Your task to perform on an android device: delete a single message in the gmail app Image 0: 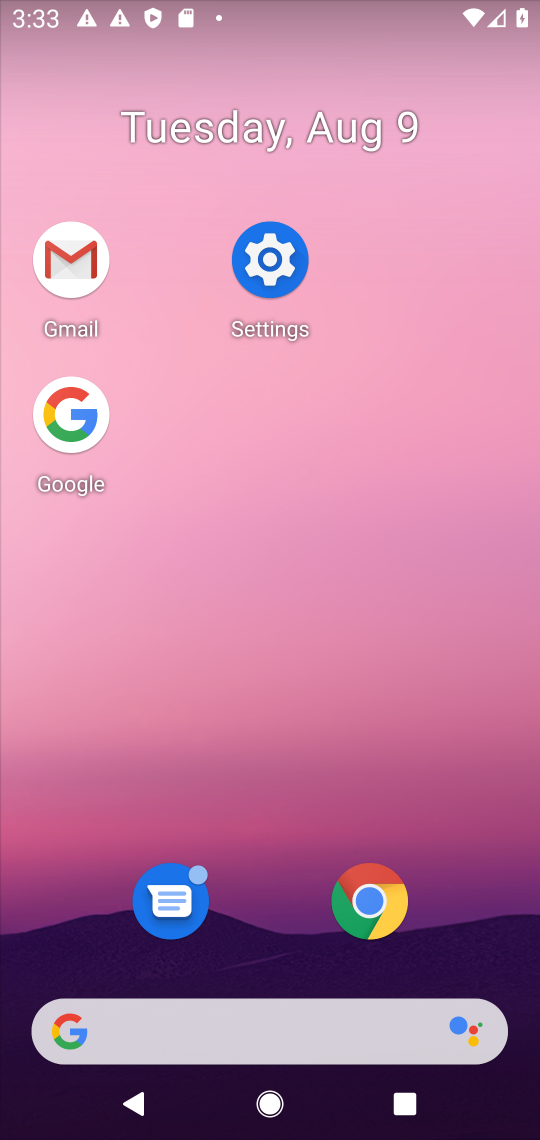
Step 0: click (51, 265)
Your task to perform on an android device: delete a single message in the gmail app Image 1: 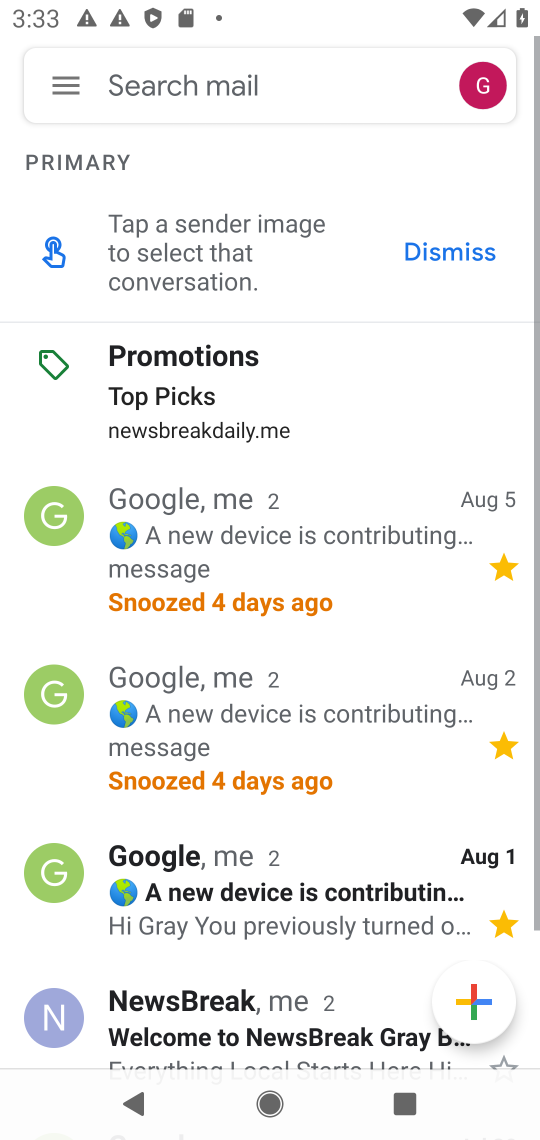
Step 1: click (257, 505)
Your task to perform on an android device: delete a single message in the gmail app Image 2: 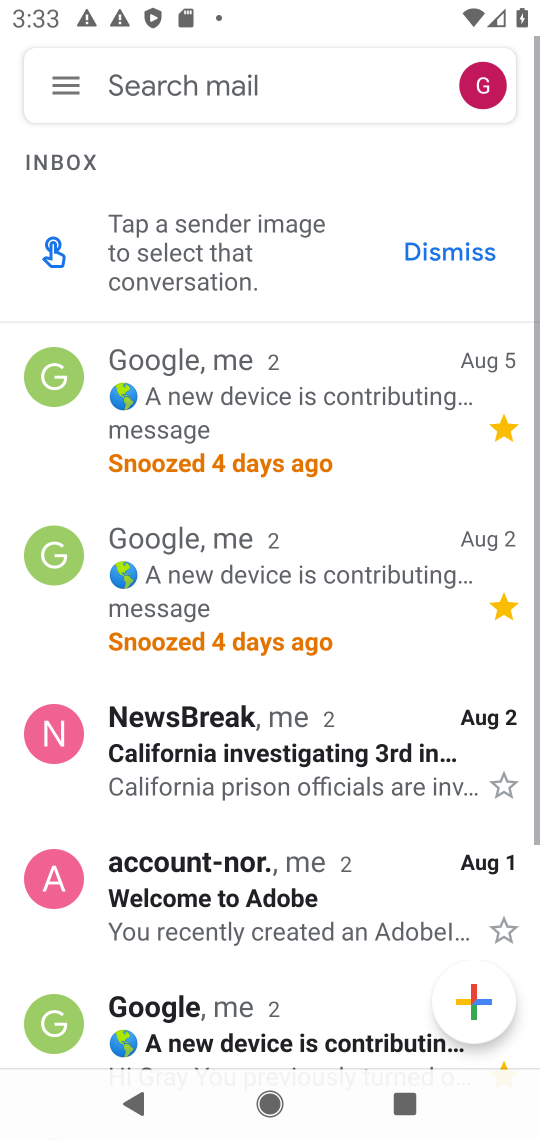
Step 2: click (299, 389)
Your task to perform on an android device: delete a single message in the gmail app Image 3: 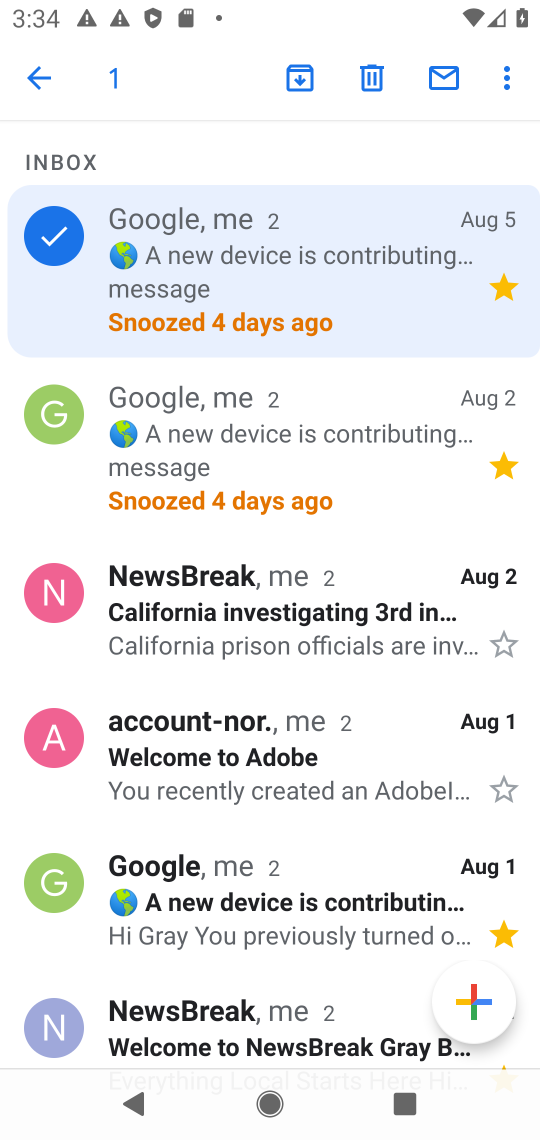
Step 3: click (369, 68)
Your task to perform on an android device: delete a single message in the gmail app Image 4: 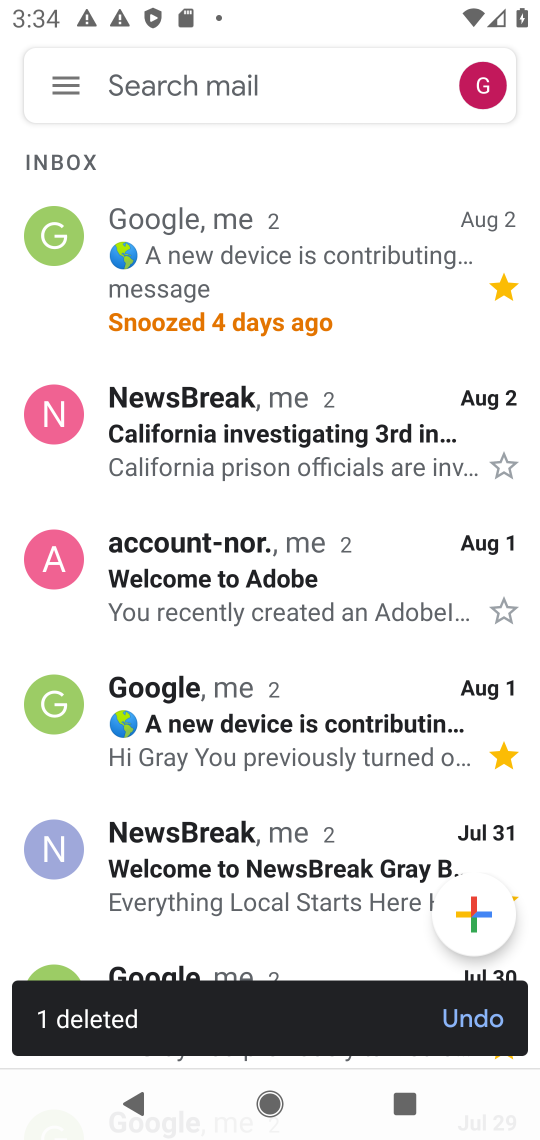
Step 4: task complete